Your task to perform on an android device: open app "ZOOM Cloud Meetings" (install if not already installed) Image 0: 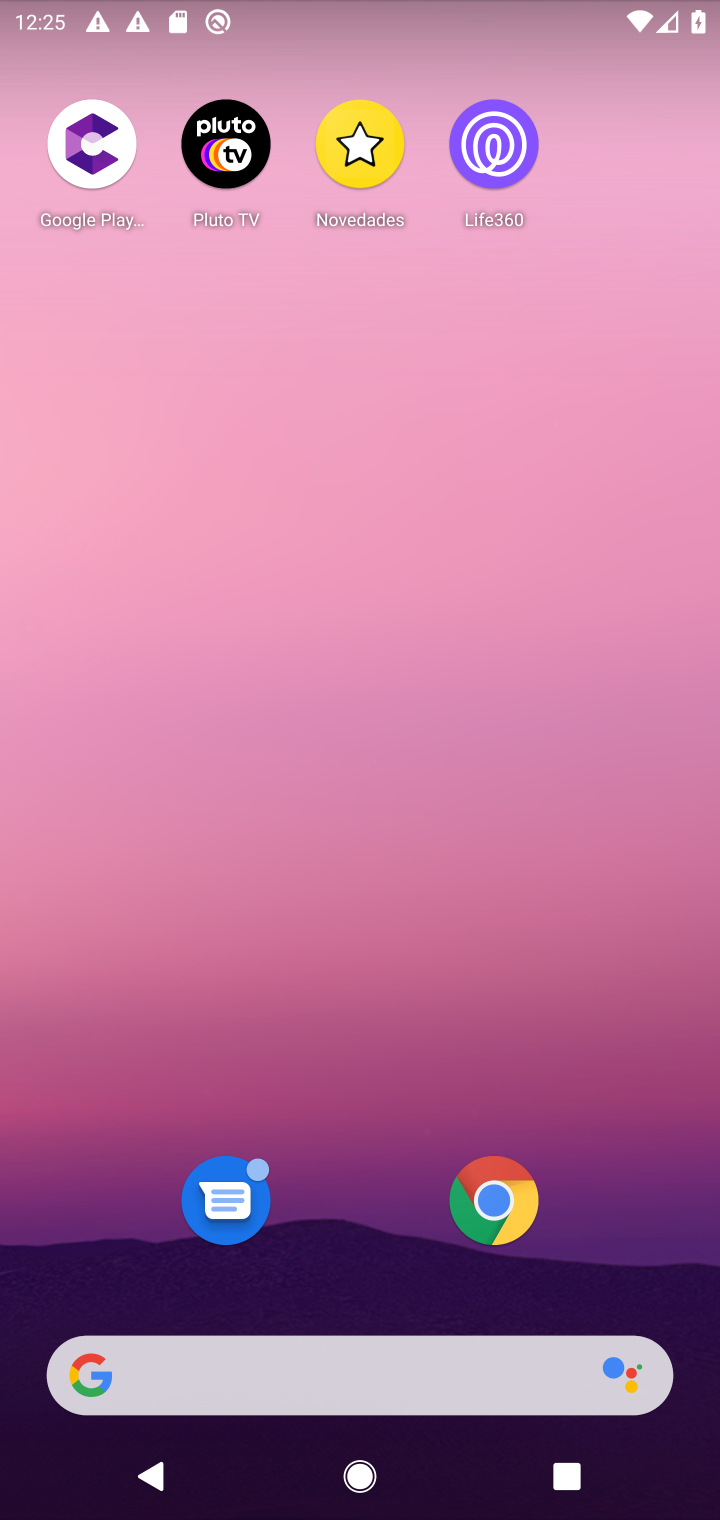
Step 0: drag from (332, 1216) to (365, 64)
Your task to perform on an android device: open app "ZOOM Cloud Meetings" (install if not already installed) Image 1: 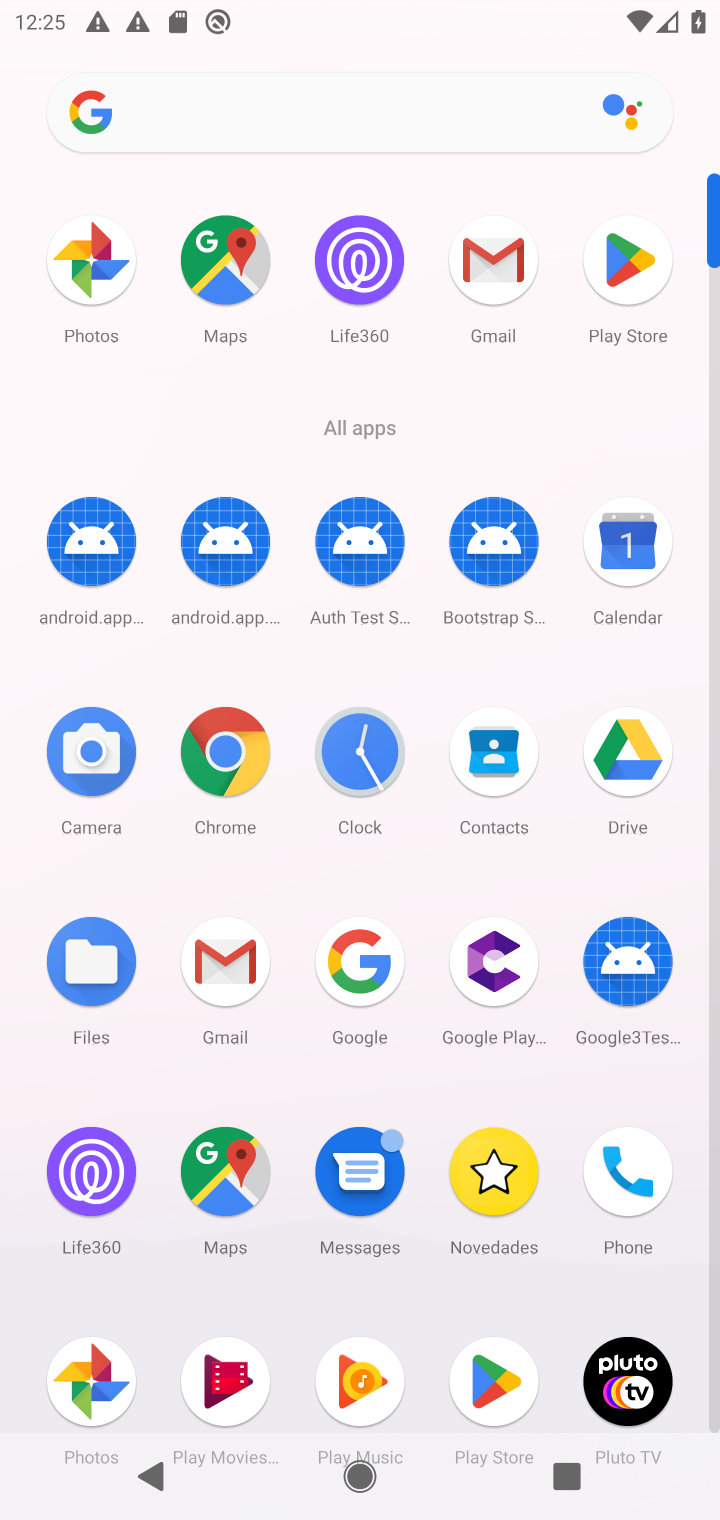
Step 1: click (624, 237)
Your task to perform on an android device: open app "ZOOM Cloud Meetings" (install if not already installed) Image 2: 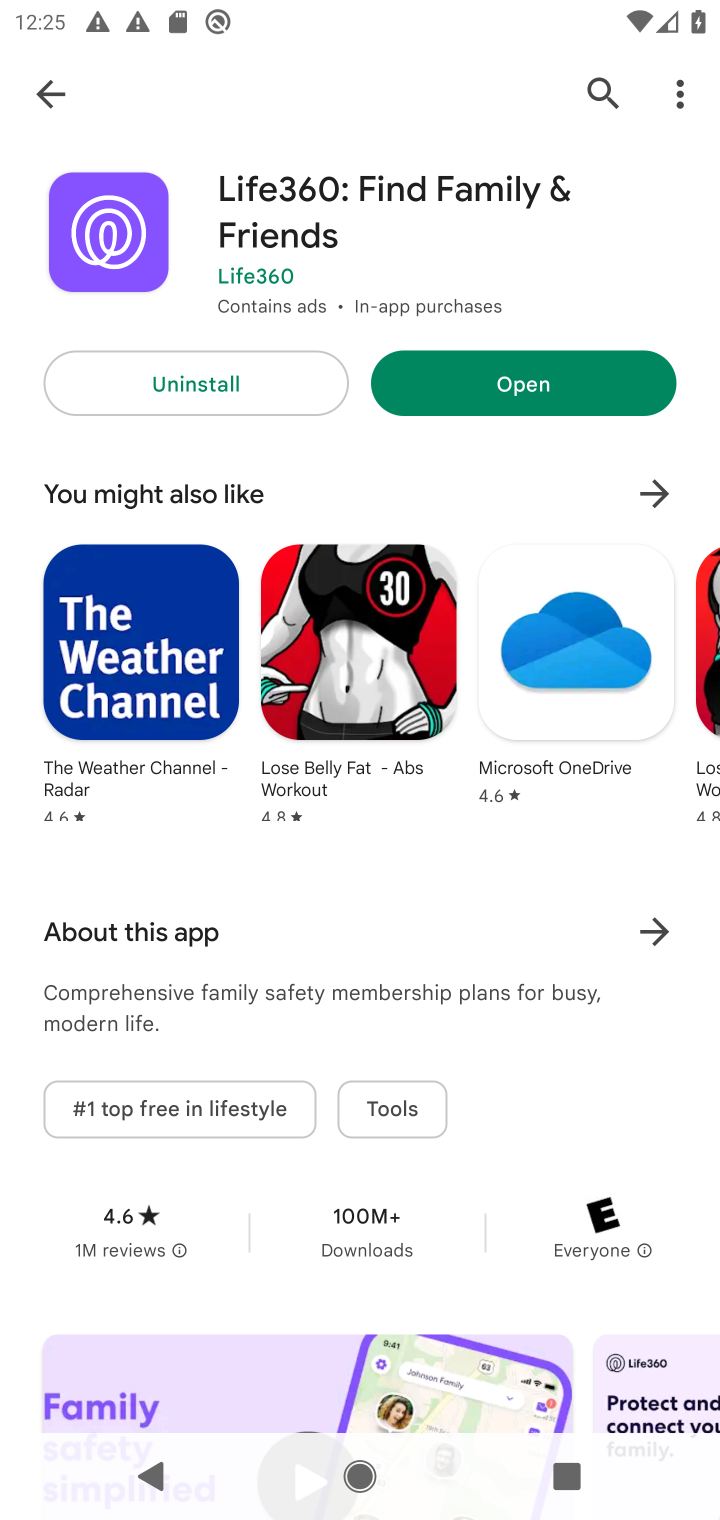
Step 2: click (610, 99)
Your task to perform on an android device: open app "ZOOM Cloud Meetings" (install if not already installed) Image 3: 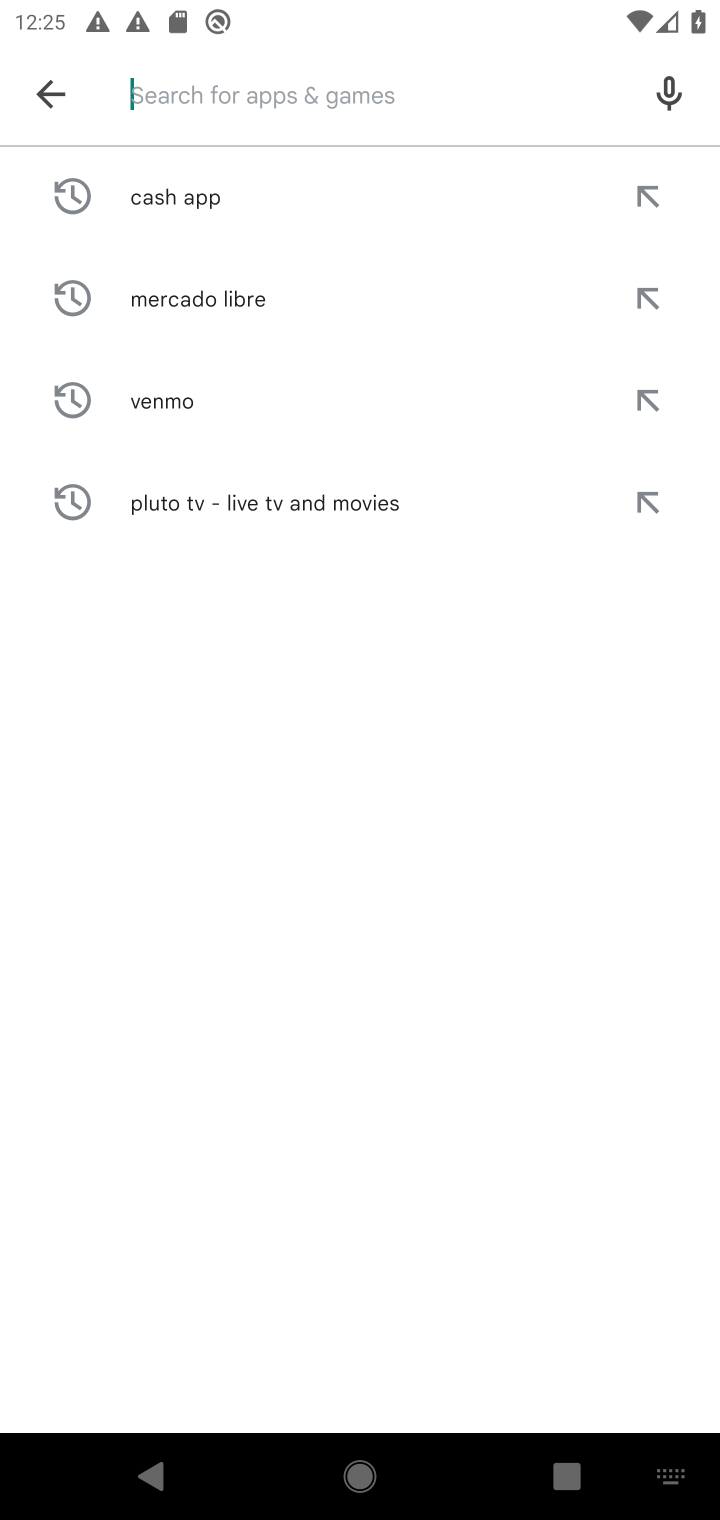
Step 3: type "zoom cloud meetings"
Your task to perform on an android device: open app "ZOOM Cloud Meetings" (install if not already installed) Image 4: 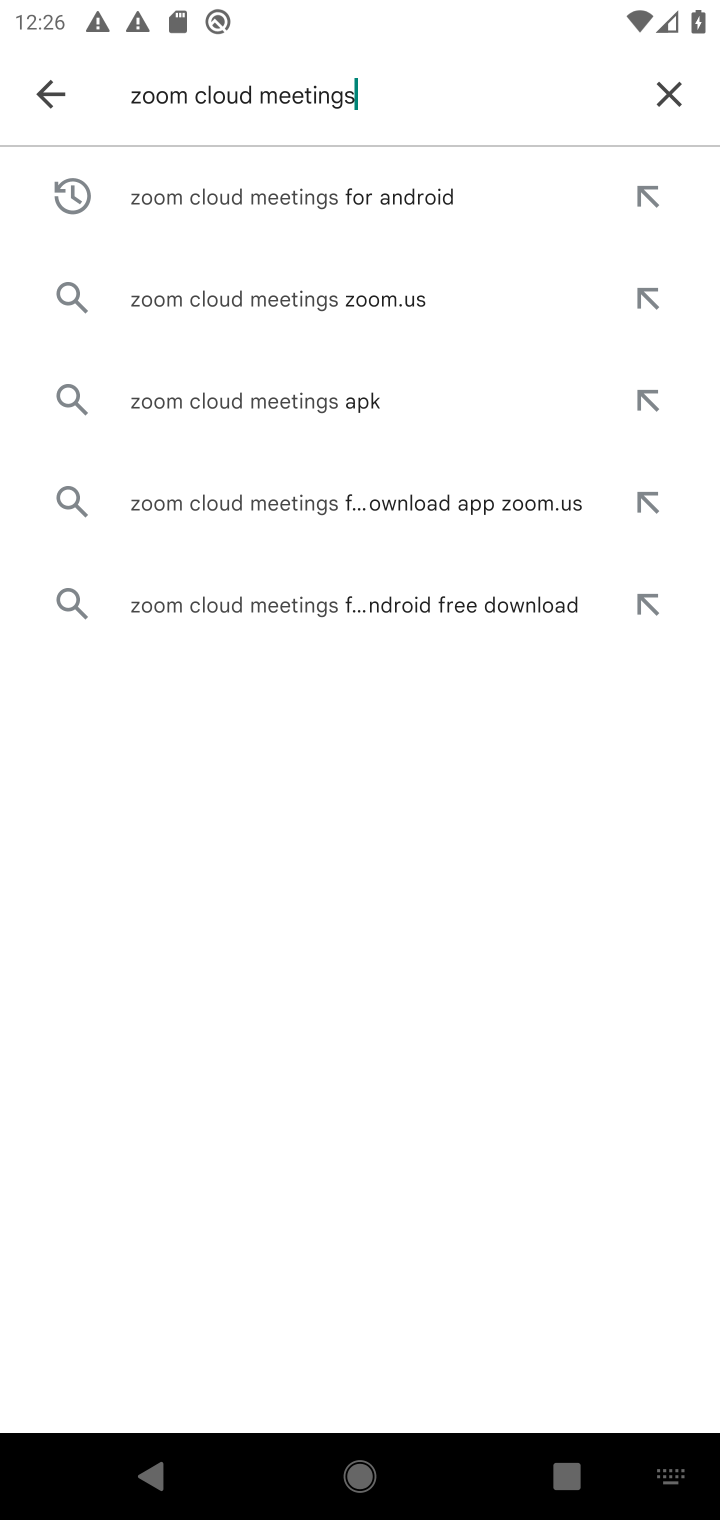
Step 4: click (264, 174)
Your task to perform on an android device: open app "ZOOM Cloud Meetings" (install if not already installed) Image 5: 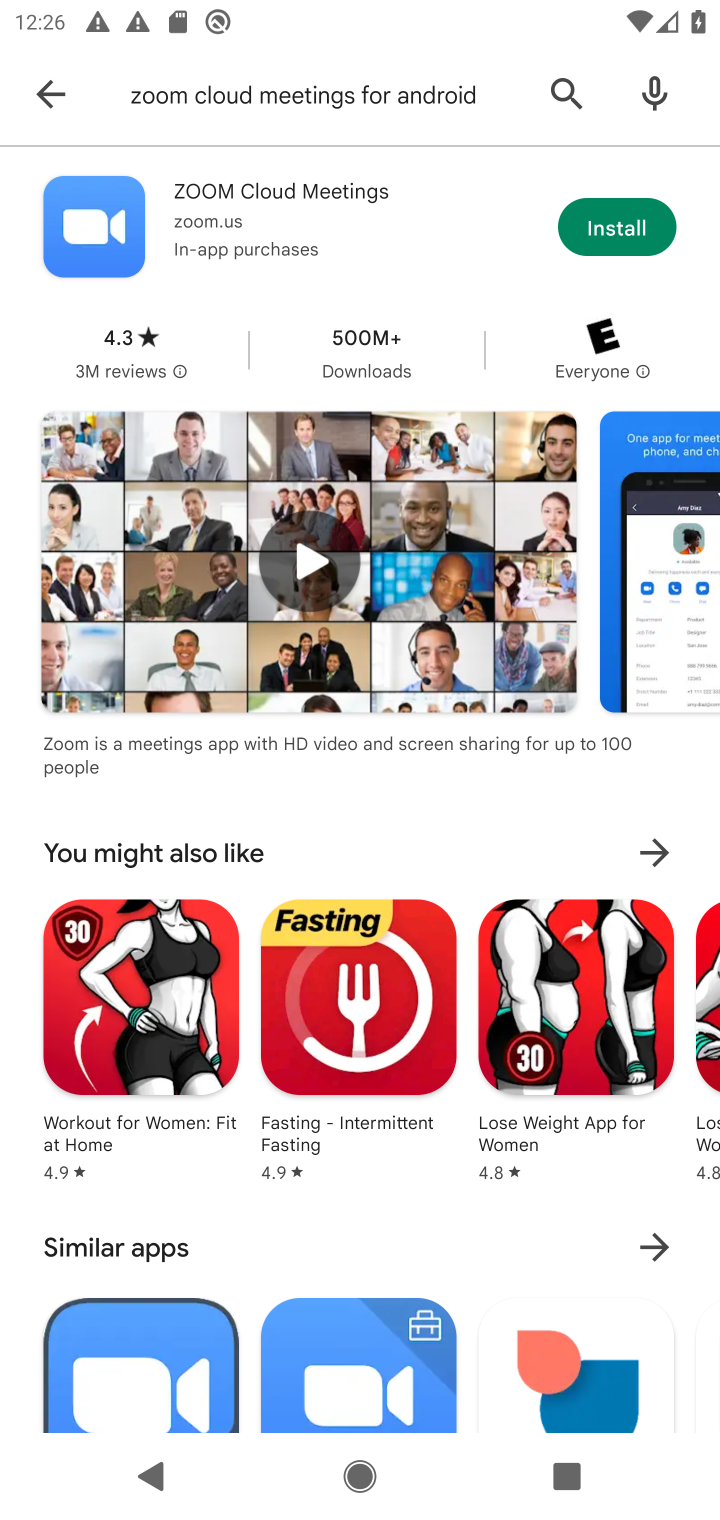
Step 5: click (264, 174)
Your task to perform on an android device: open app "ZOOM Cloud Meetings" (install if not already installed) Image 6: 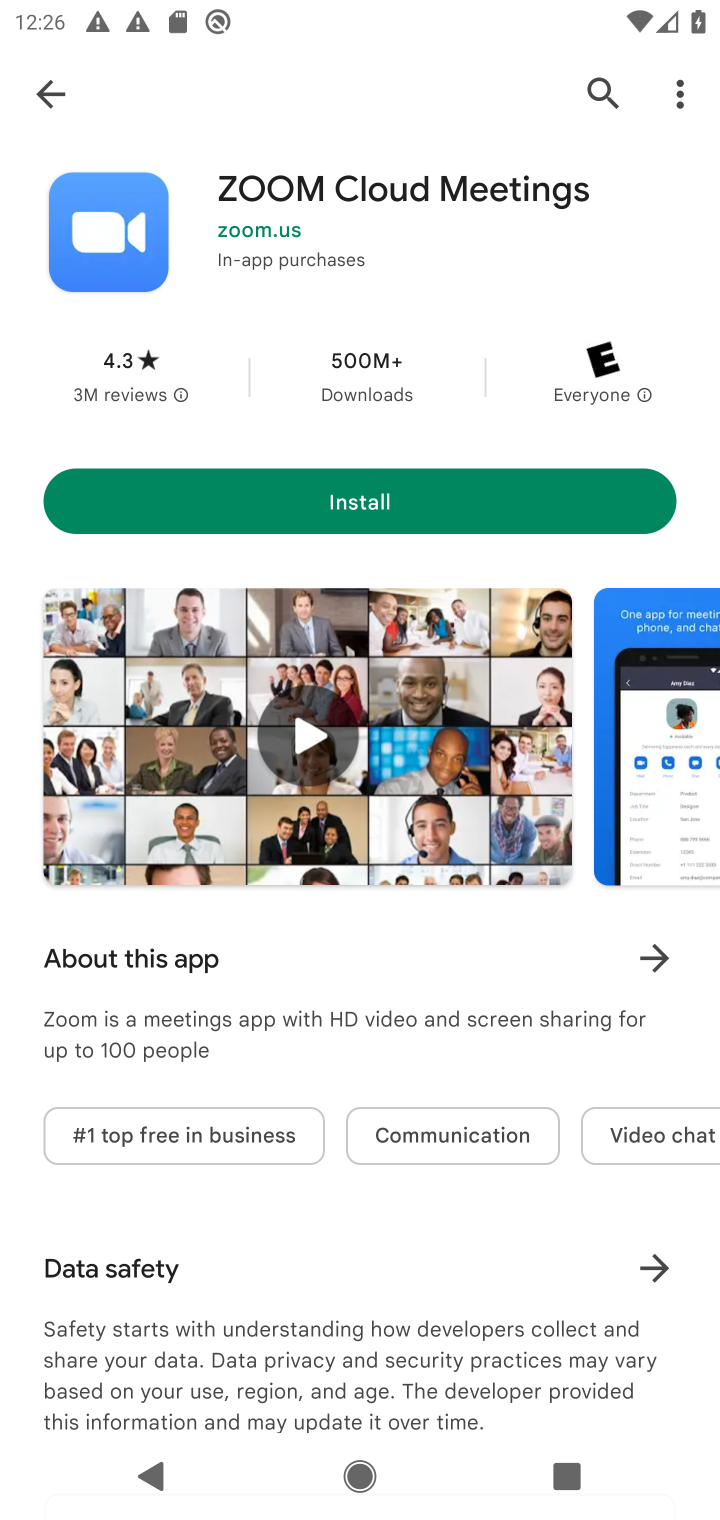
Step 6: click (273, 494)
Your task to perform on an android device: open app "ZOOM Cloud Meetings" (install if not already installed) Image 7: 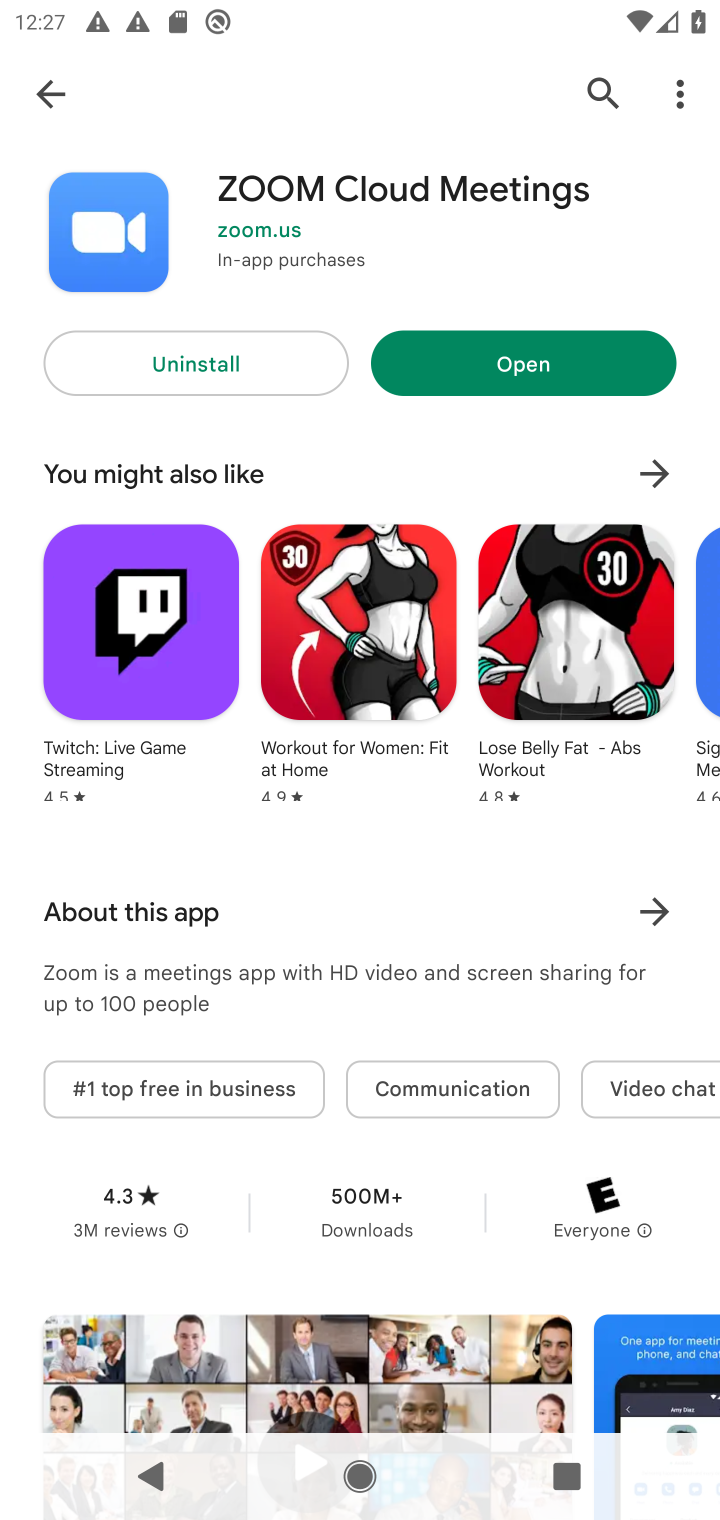
Step 7: click (595, 349)
Your task to perform on an android device: open app "ZOOM Cloud Meetings" (install if not already installed) Image 8: 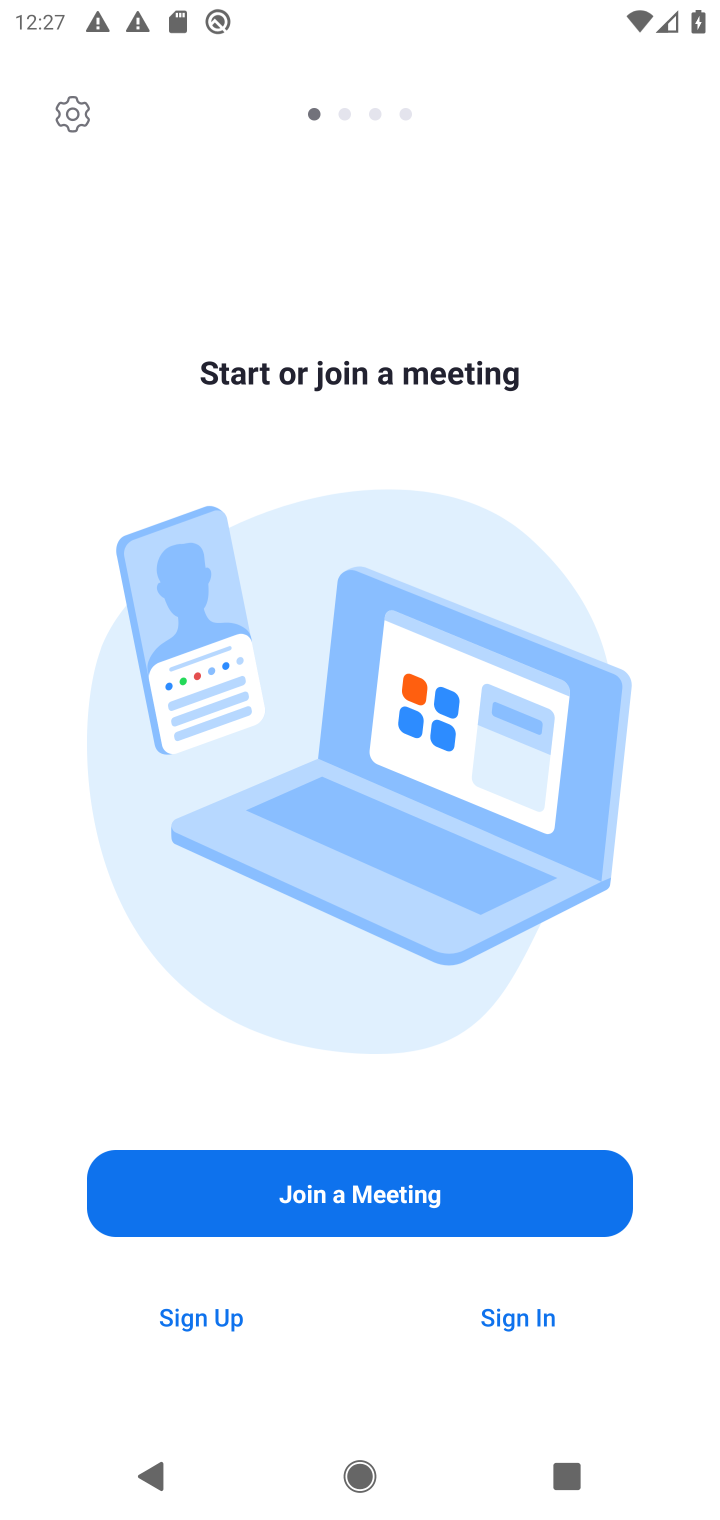
Step 8: task complete